Your task to perform on an android device: turn on airplane mode Image 0: 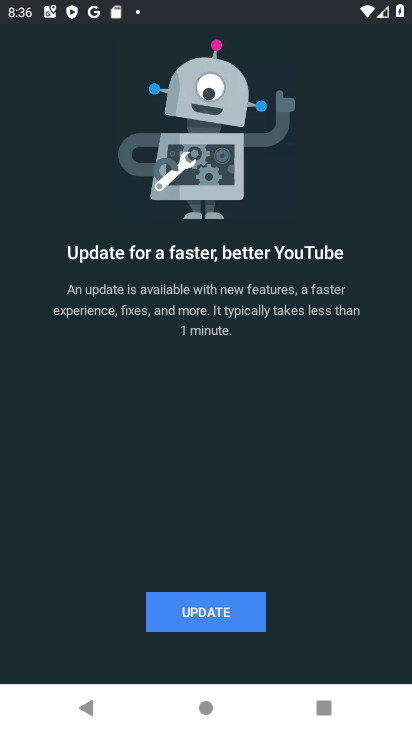
Step 0: press home button
Your task to perform on an android device: turn on airplane mode Image 1: 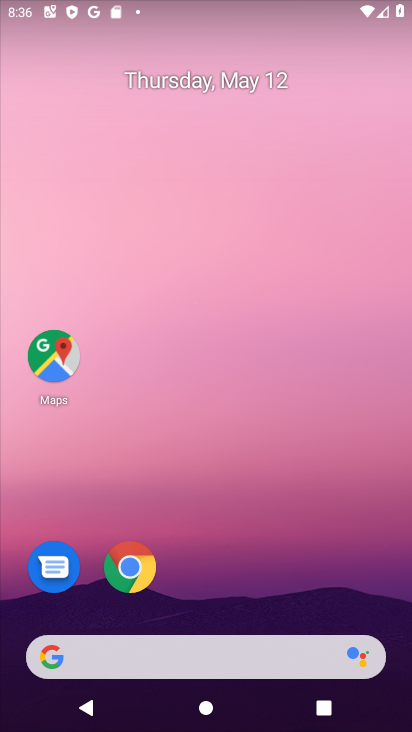
Step 1: drag from (226, 659) to (250, 104)
Your task to perform on an android device: turn on airplane mode Image 2: 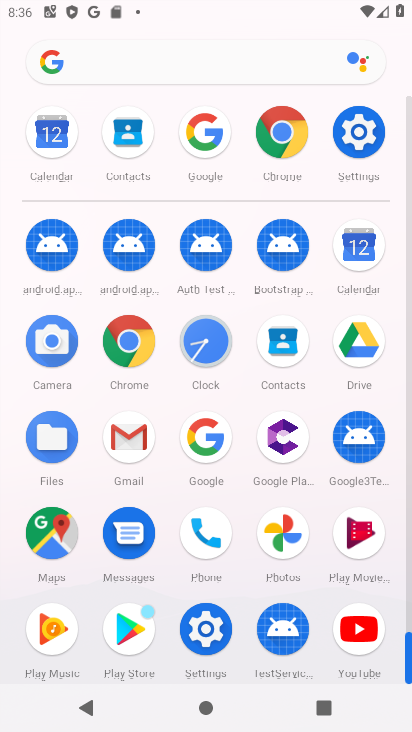
Step 2: click (360, 131)
Your task to perform on an android device: turn on airplane mode Image 3: 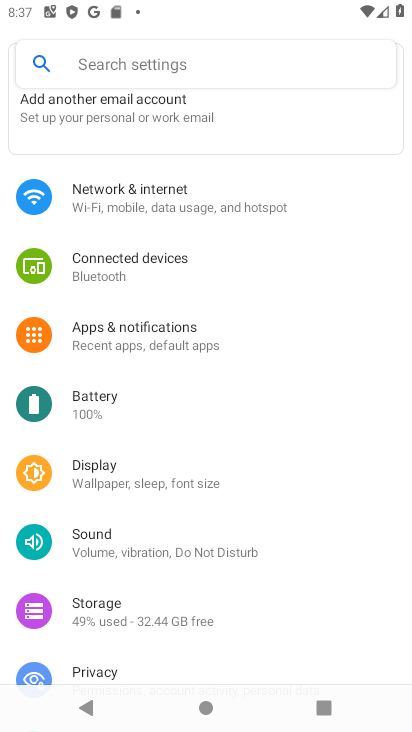
Step 3: click (204, 204)
Your task to perform on an android device: turn on airplane mode Image 4: 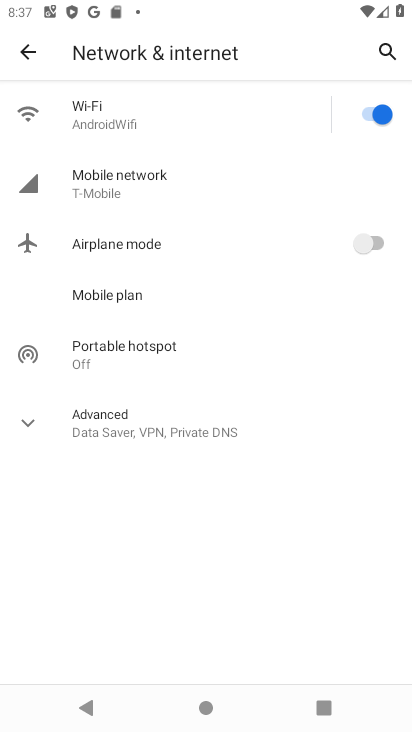
Step 4: click (318, 239)
Your task to perform on an android device: turn on airplane mode Image 5: 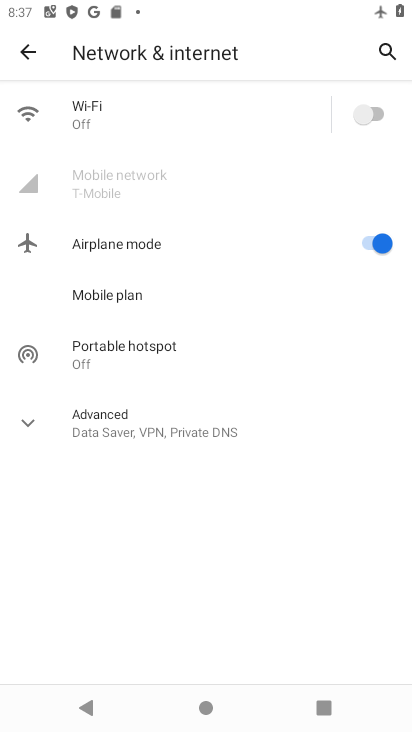
Step 5: task complete